Your task to perform on an android device: Open sound settings Image 0: 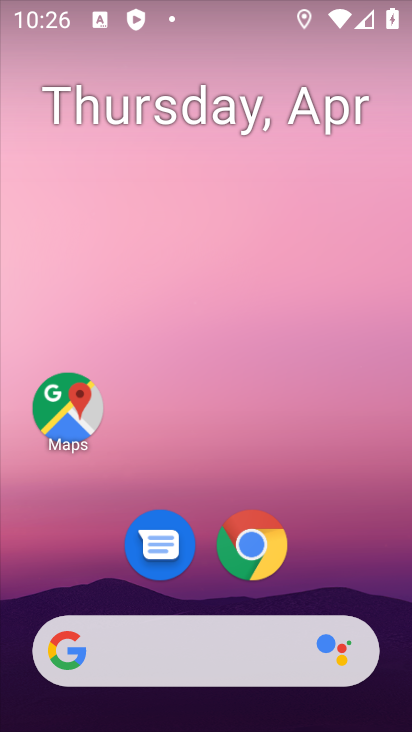
Step 0: drag from (5, 653) to (180, 252)
Your task to perform on an android device: Open sound settings Image 1: 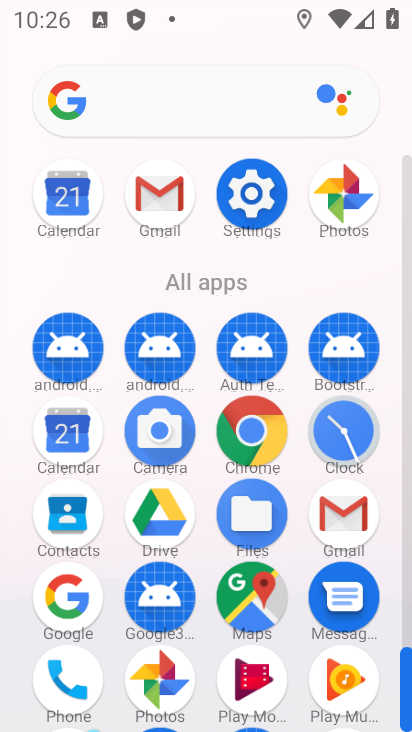
Step 1: click (245, 202)
Your task to perform on an android device: Open sound settings Image 2: 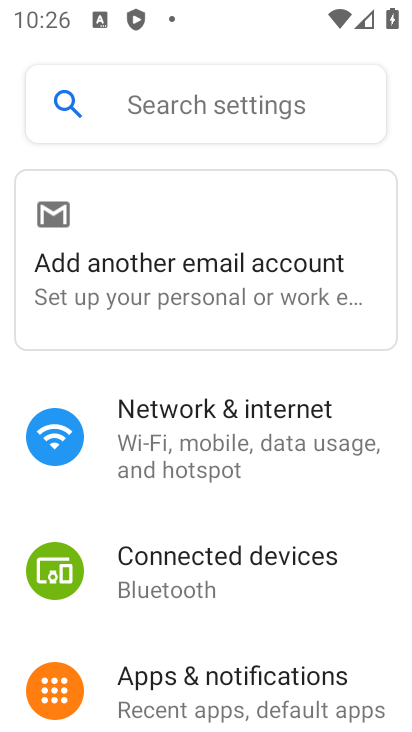
Step 2: drag from (157, 667) to (266, 308)
Your task to perform on an android device: Open sound settings Image 3: 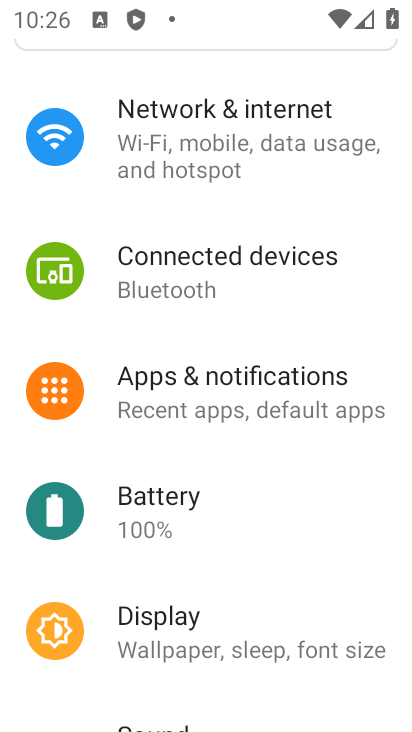
Step 3: drag from (178, 563) to (302, 260)
Your task to perform on an android device: Open sound settings Image 4: 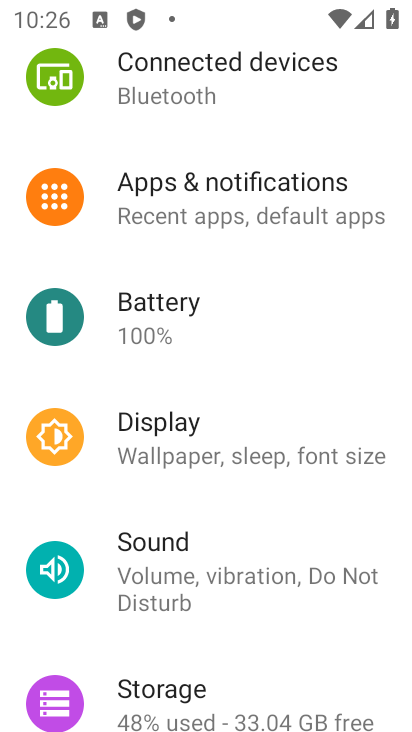
Step 4: click (220, 543)
Your task to perform on an android device: Open sound settings Image 5: 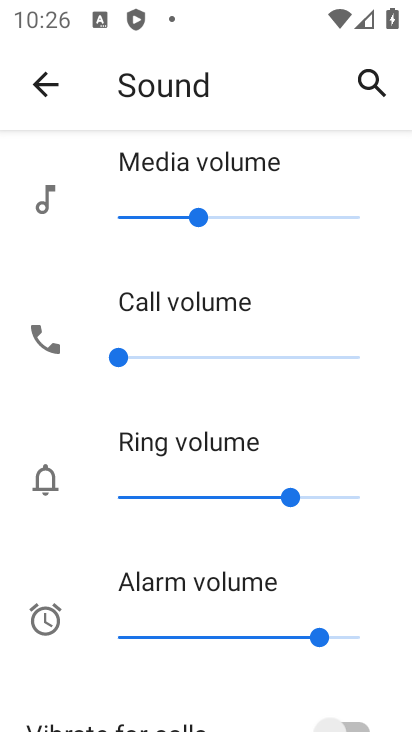
Step 5: task complete